Your task to perform on an android device: check android version Image 0: 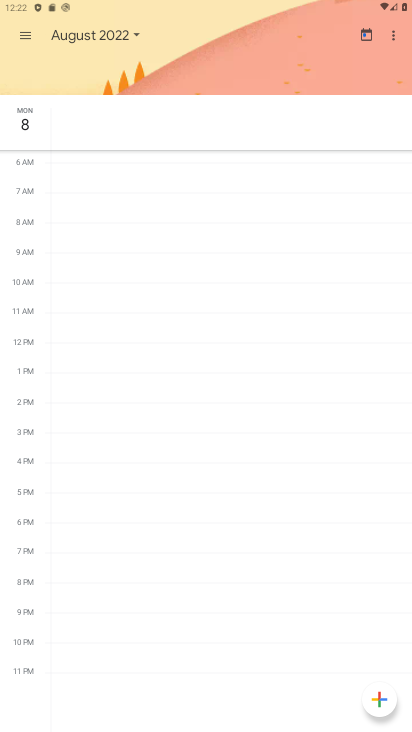
Step 0: press home button
Your task to perform on an android device: check android version Image 1: 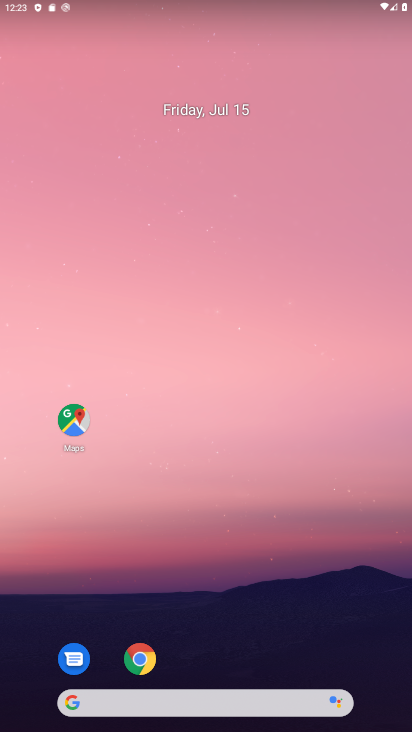
Step 1: drag from (192, 645) to (232, 201)
Your task to perform on an android device: check android version Image 2: 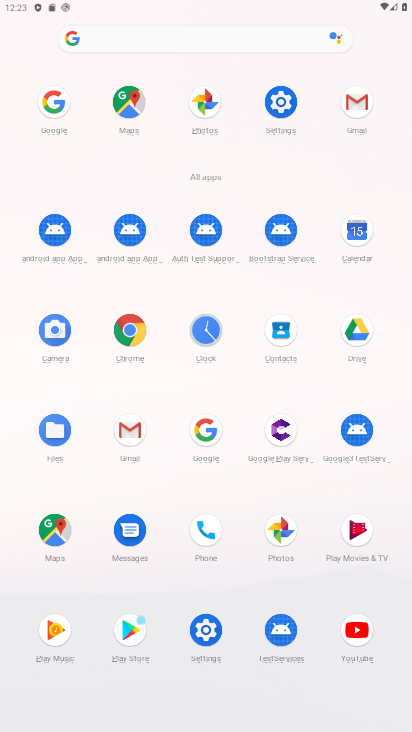
Step 2: click (282, 113)
Your task to perform on an android device: check android version Image 3: 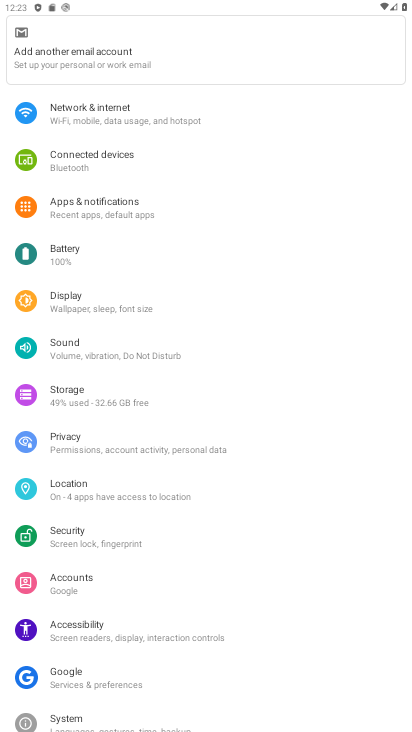
Step 3: drag from (98, 657) to (123, 191)
Your task to perform on an android device: check android version Image 4: 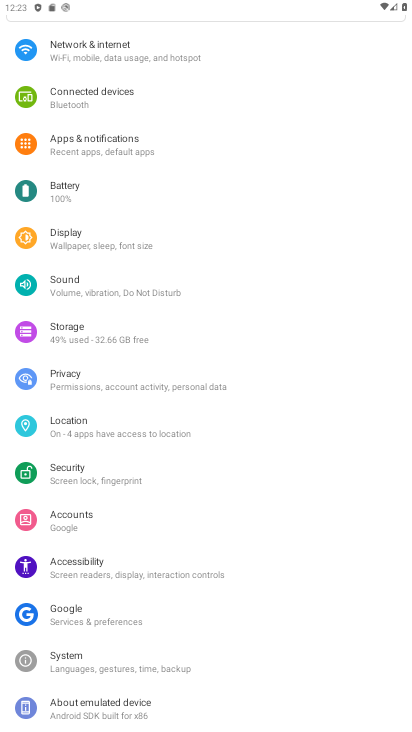
Step 4: click (105, 726)
Your task to perform on an android device: check android version Image 5: 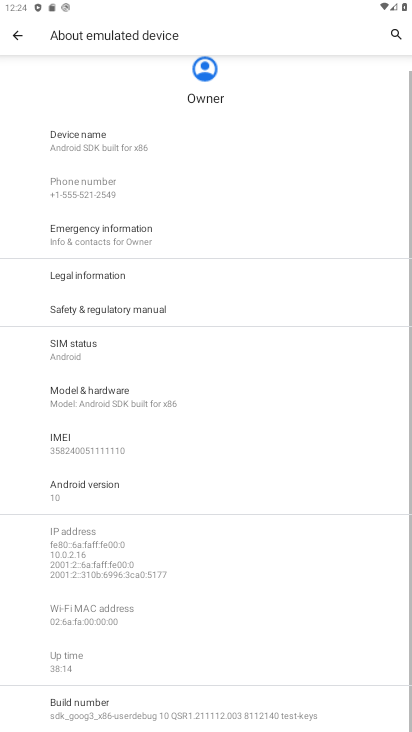
Step 5: task complete